Your task to perform on an android device: Open Android settings Image 0: 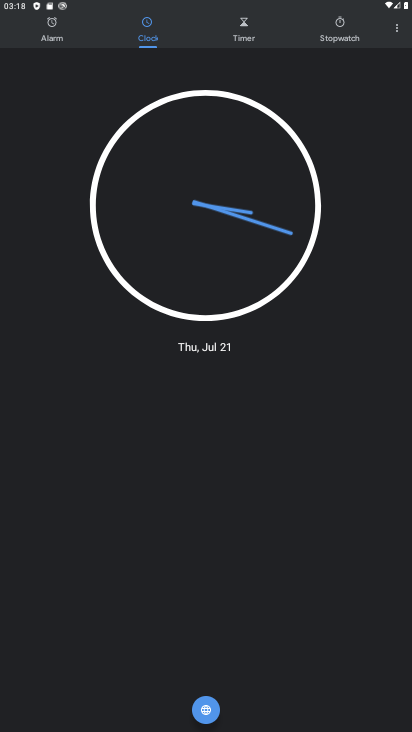
Step 0: press home button
Your task to perform on an android device: Open Android settings Image 1: 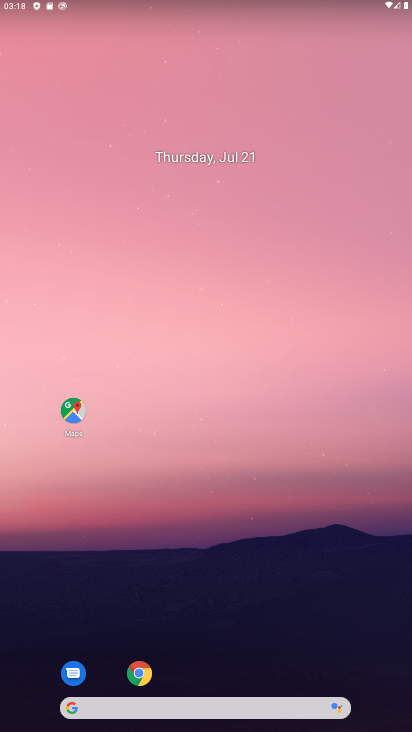
Step 1: drag from (310, 617) to (246, 50)
Your task to perform on an android device: Open Android settings Image 2: 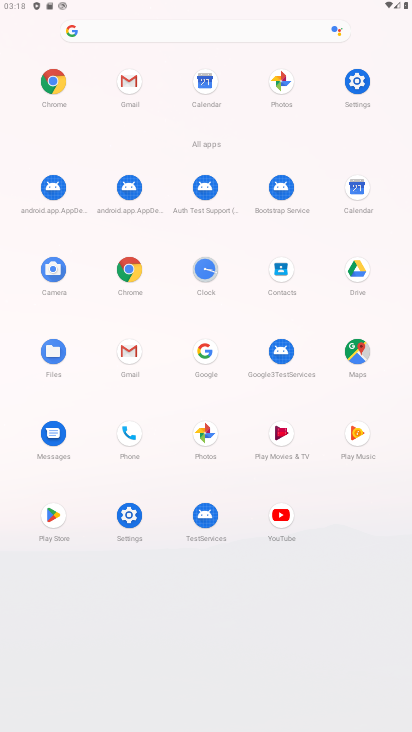
Step 2: click (353, 76)
Your task to perform on an android device: Open Android settings Image 3: 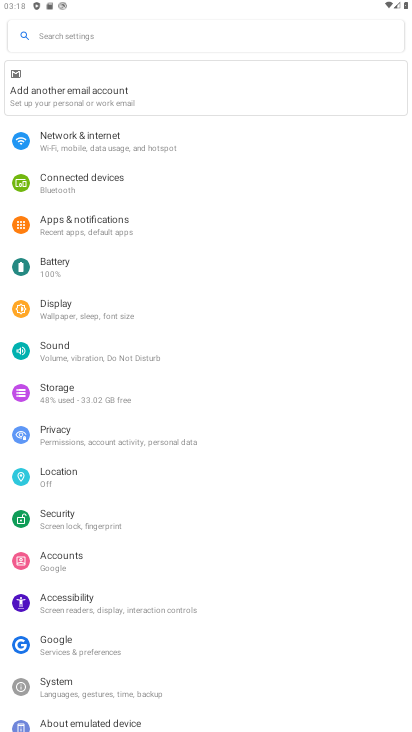
Step 3: task complete